Your task to perform on an android device: Go to internet settings Image 0: 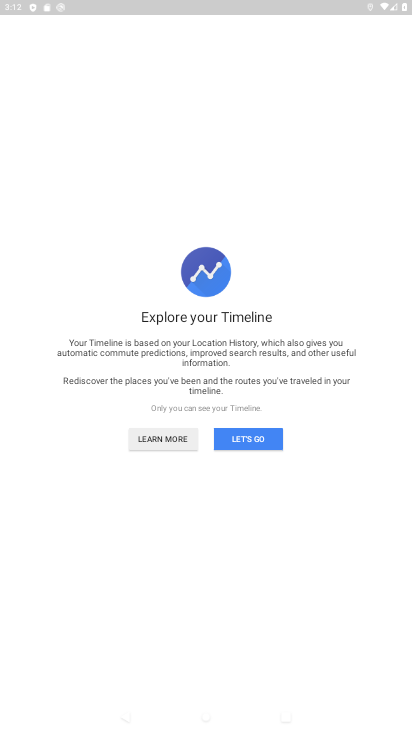
Step 0: press home button
Your task to perform on an android device: Go to internet settings Image 1: 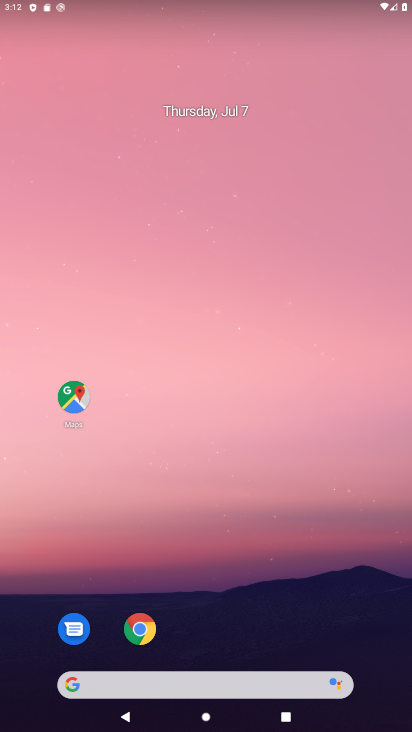
Step 1: drag from (40, 705) to (207, 248)
Your task to perform on an android device: Go to internet settings Image 2: 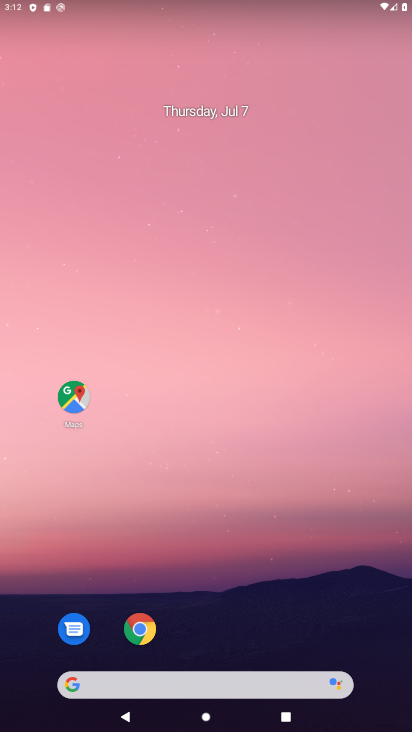
Step 2: drag from (39, 679) to (235, 100)
Your task to perform on an android device: Go to internet settings Image 3: 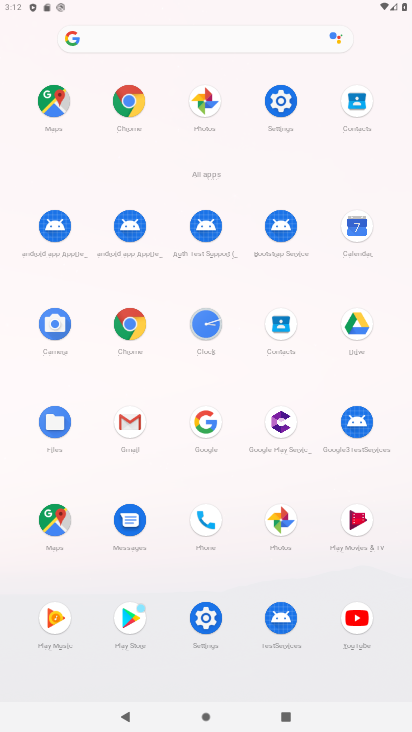
Step 3: click (177, 614)
Your task to perform on an android device: Go to internet settings Image 4: 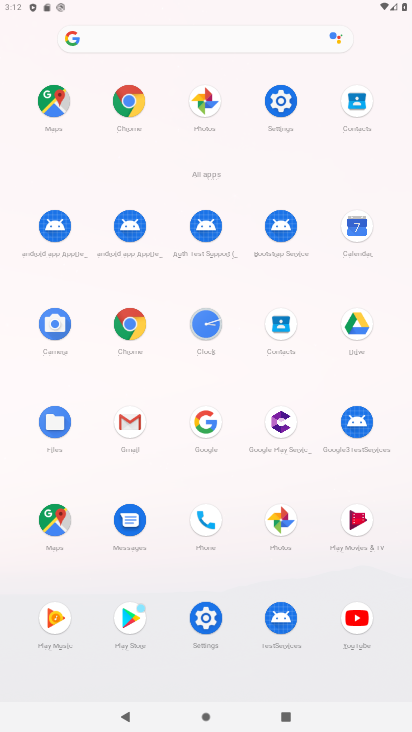
Step 4: click (186, 612)
Your task to perform on an android device: Go to internet settings Image 5: 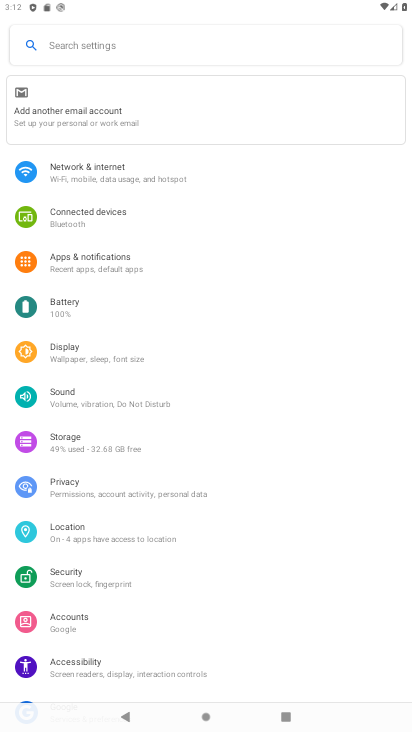
Step 5: click (67, 172)
Your task to perform on an android device: Go to internet settings Image 6: 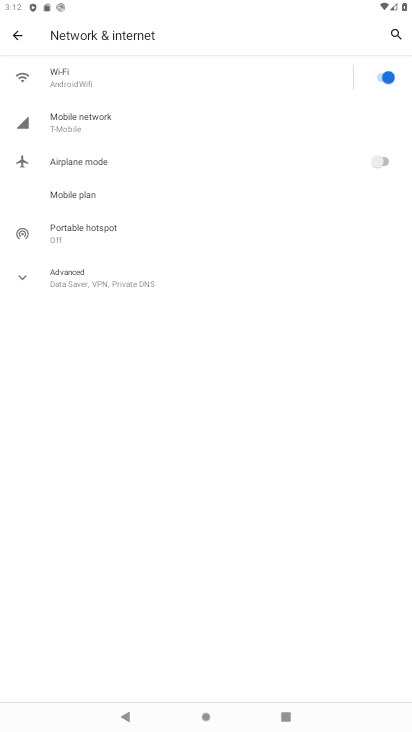
Step 6: task complete